Your task to perform on an android device: turn notification dots off Image 0: 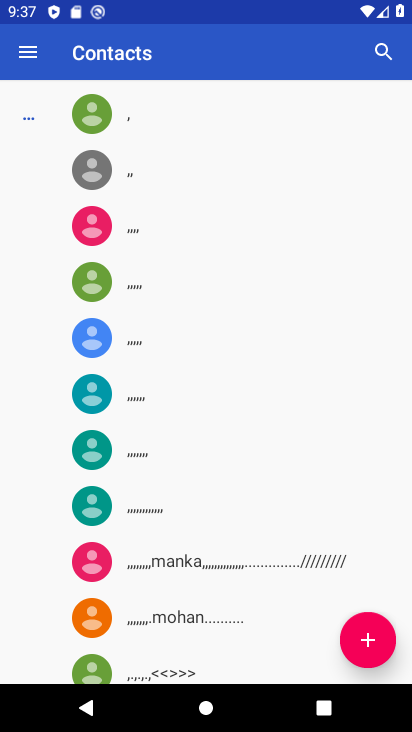
Step 0: press home button
Your task to perform on an android device: turn notification dots off Image 1: 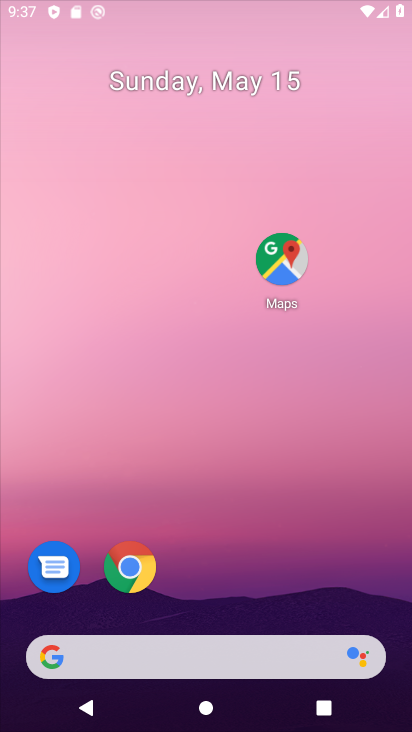
Step 1: drag from (227, 579) to (227, 96)
Your task to perform on an android device: turn notification dots off Image 2: 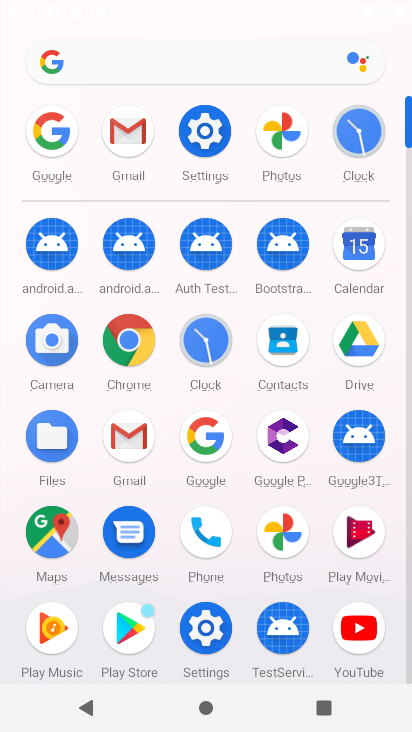
Step 2: click (206, 125)
Your task to perform on an android device: turn notification dots off Image 3: 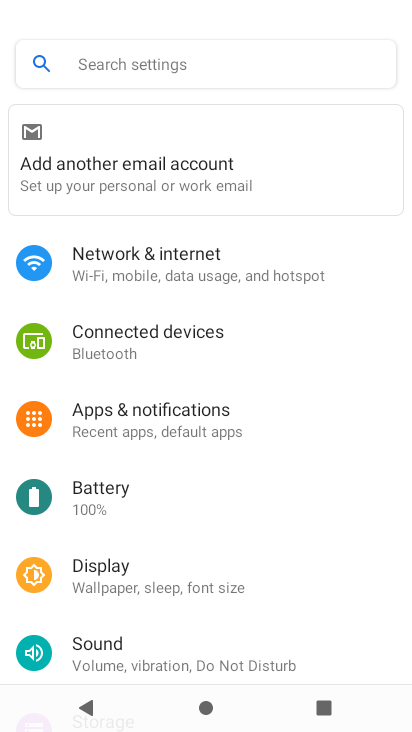
Step 3: click (163, 426)
Your task to perform on an android device: turn notification dots off Image 4: 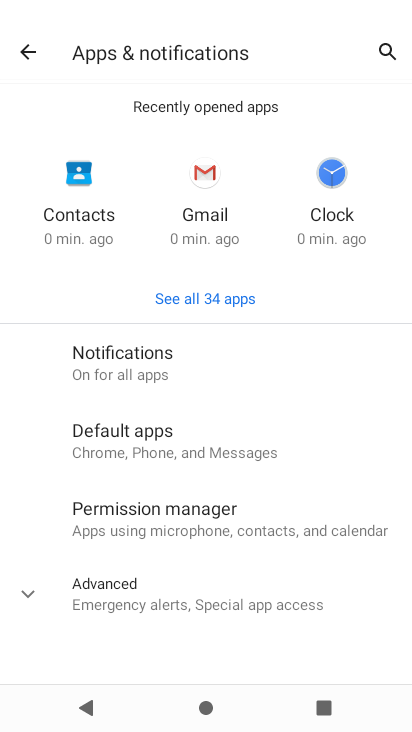
Step 4: click (132, 364)
Your task to perform on an android device: turn notification dots off Image 5: 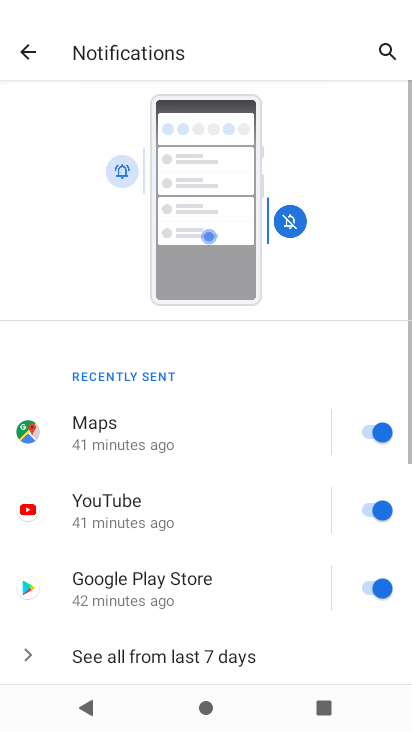
Step 5: drag from (242, 540) to (277, 57)
Your task to perform on an android device: turn notification dots off Image 6: 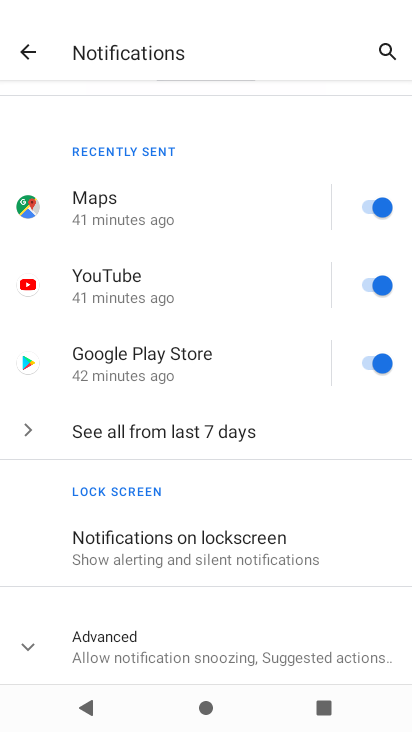
Step 6: click (123, 649)
Your task to perform on an android device: turn notification dots off Image 7: 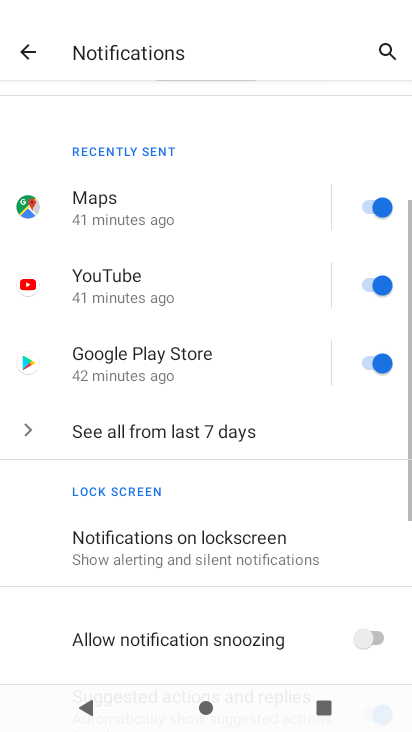
Step 7: drag from (256, 575) to (236, 96)
Your task to perform on an android device: turn notification dots off Image 8: 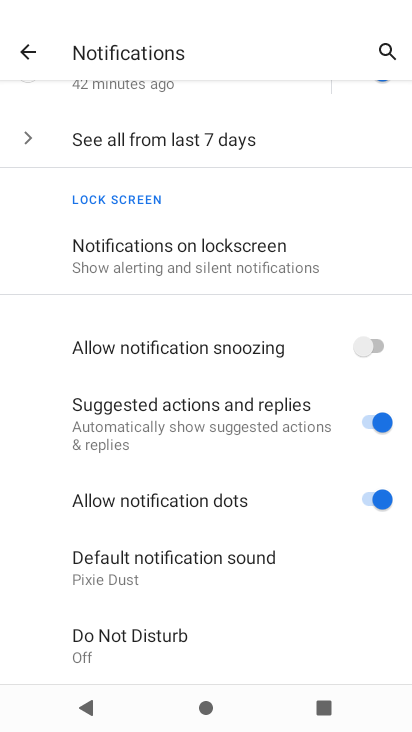
Step 8: click (380, 505)
Your task to perform on an android device: turn notification dots off Image 9: 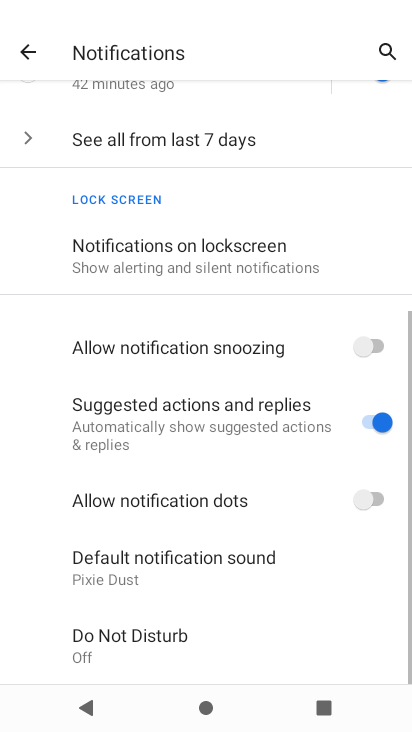
Step 9: task complete